Your task to perform on an android device: turn off notifications settings in the gmail app Image 0: 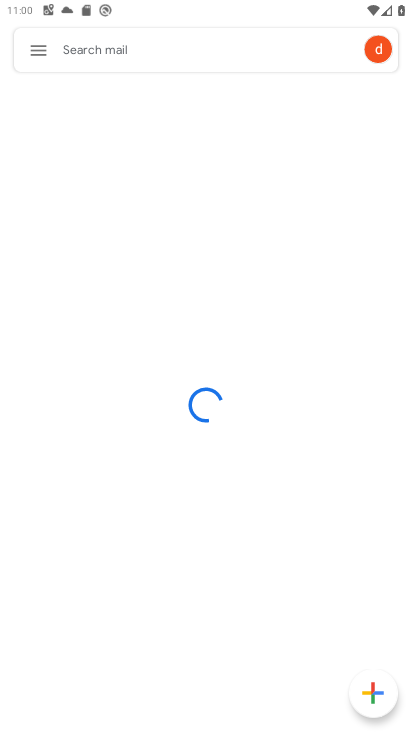
Step 0: click (35, 54)
Your task to perform on an android device: turn off notifications settings in the gmail app Image 1: 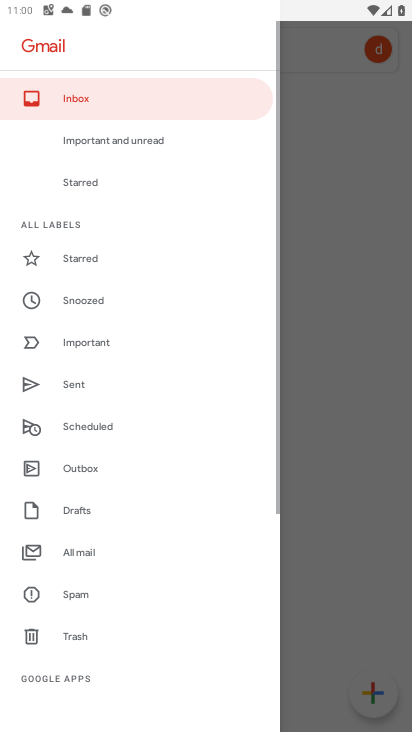
Step 1: drag from (90, 601) to (123, 108)
Your task to perform on an android device: turn off notifications settings in the gmail app Image 2: 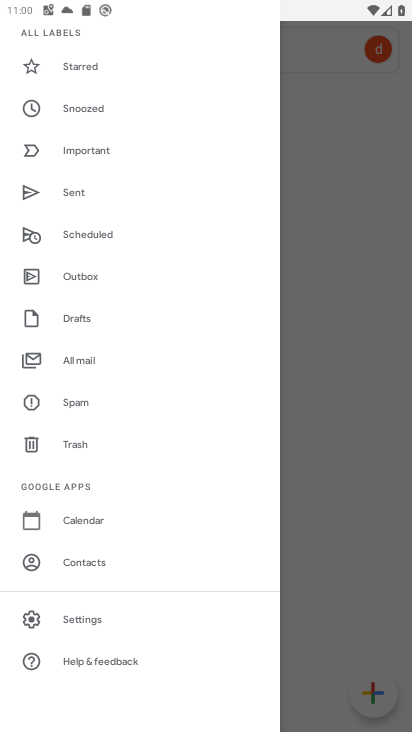
Step 2: click (65, 618)
Your task to perform on an android device: turn off notifications settings in the gmail app Image 3: 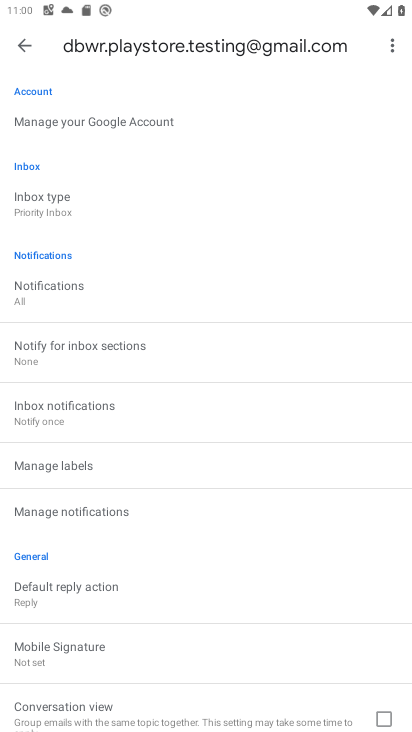
Step 3: click (110, 507)
Your task to perform on an android device: turn off notifications settings in the gmail app Image 4: 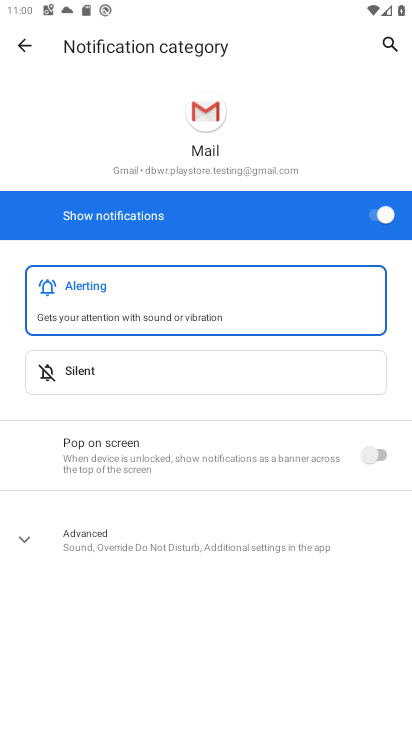
Step 4: click (368, 220)
Your task to perform on an android device: turn off notifications settings in the gmail app Image 5: 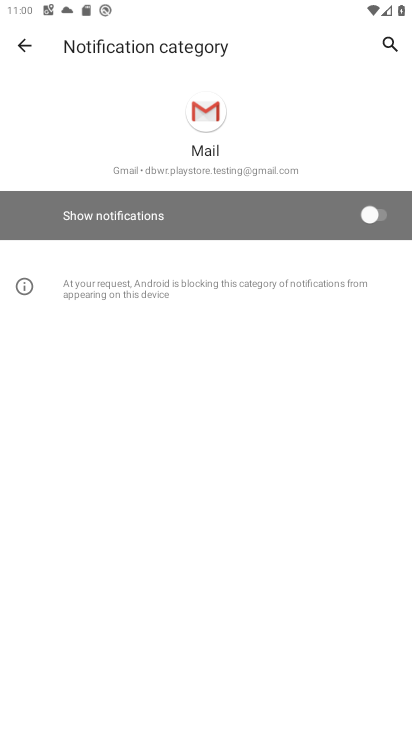
Step 5: task complete